Your task to perform on an android device: Do I have any events today? Image 0: 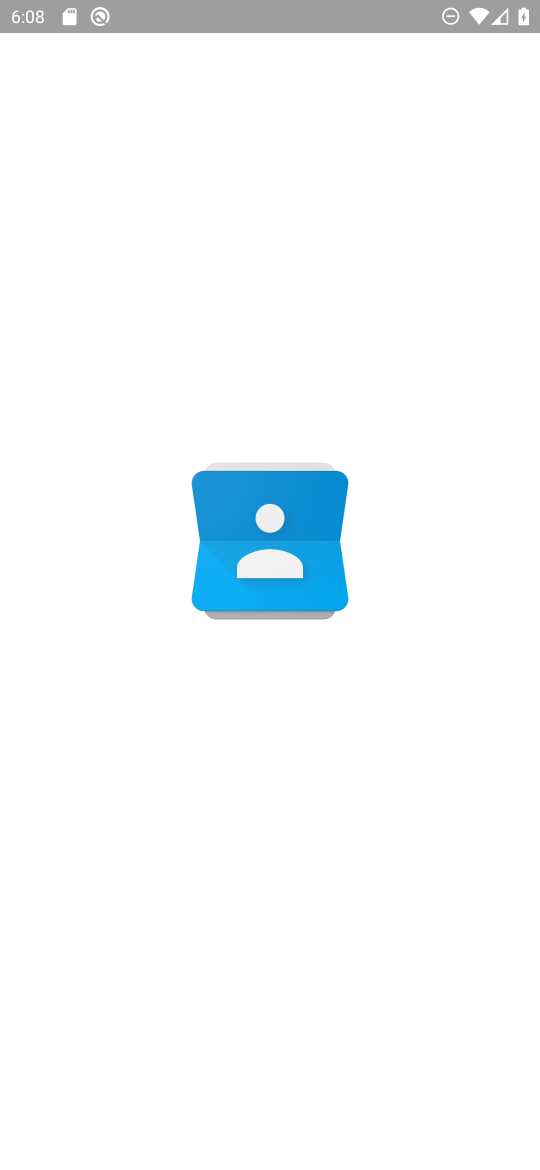
Step 0: press home button
Your task to perform on an android device: Do I have any events today? Image 1: 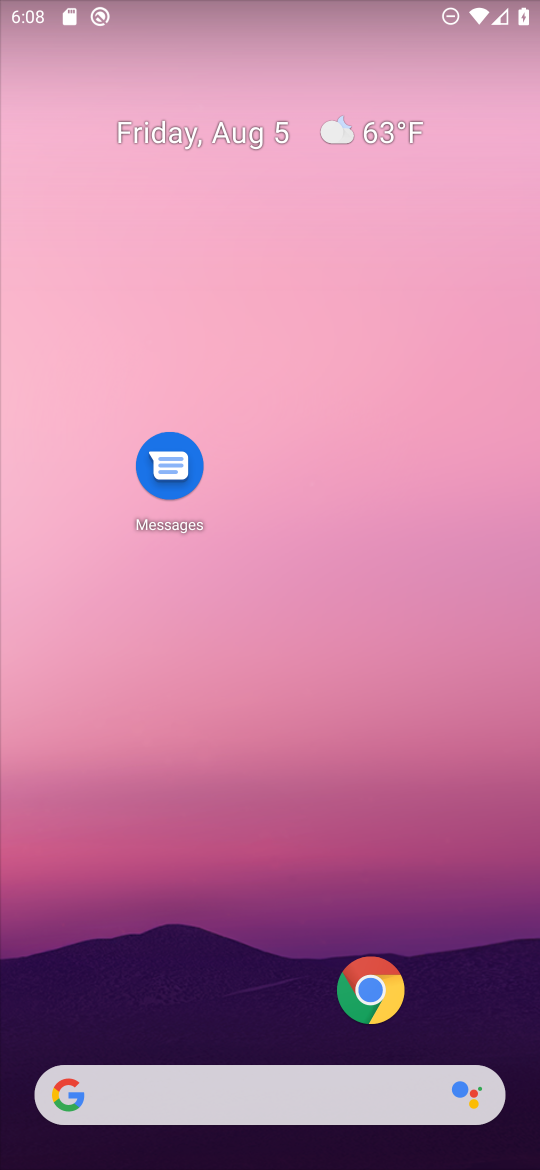
Step 1: drag from (145, 899) to (129, 639)
Your task to perform on an android device: Do I have any events today? Image 2: 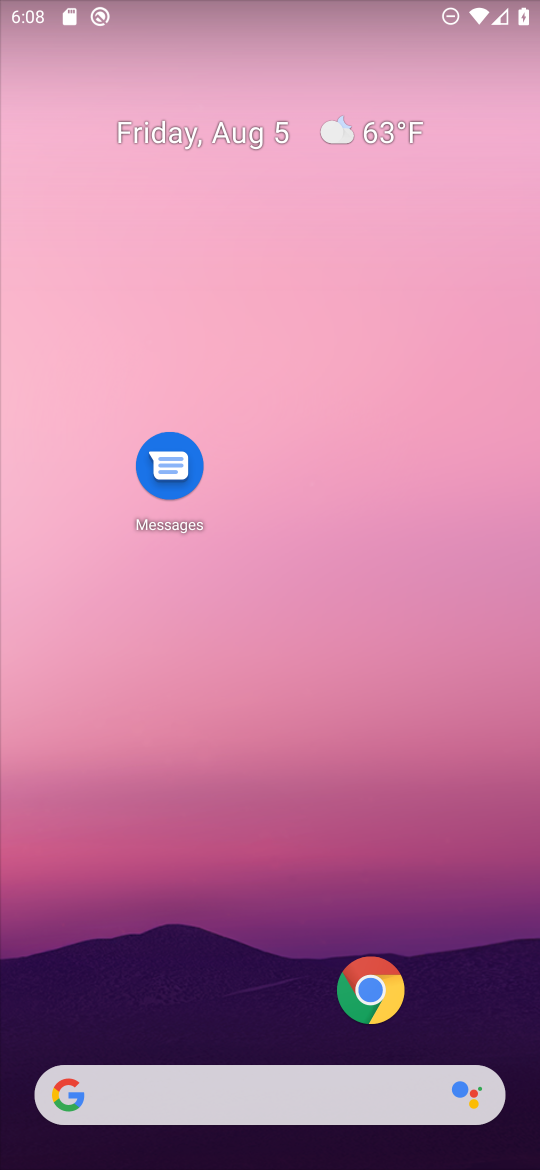
Step 2: drag from (230, 1046) to (163, 515)
Your task to perform on an android device: Do I have any events today? Image 3: 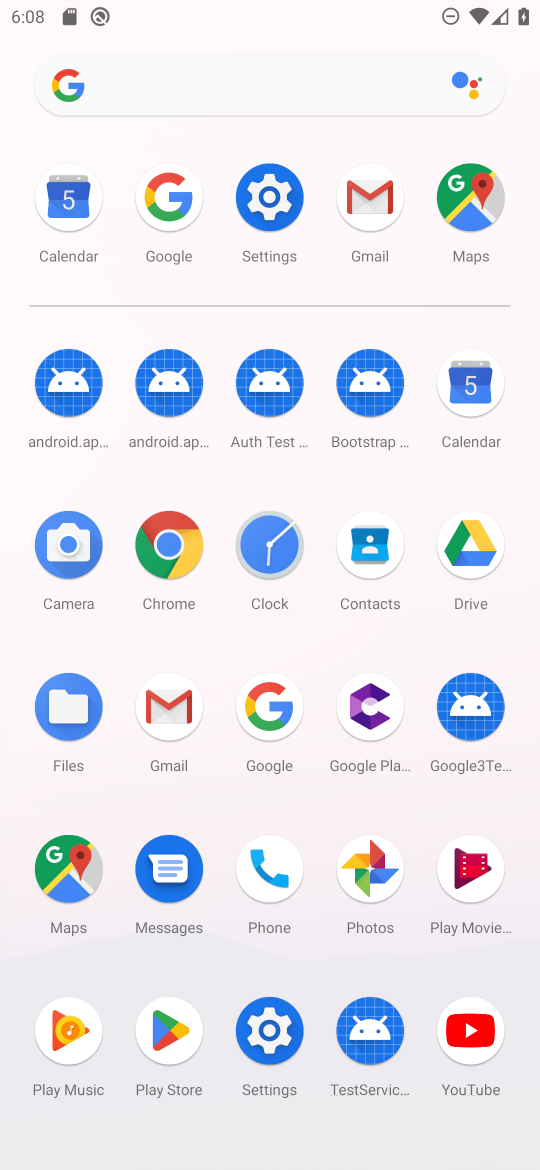
Step 3: click (481, 390)
Your task to perform on an android device: Do I have any events today? Image 4: 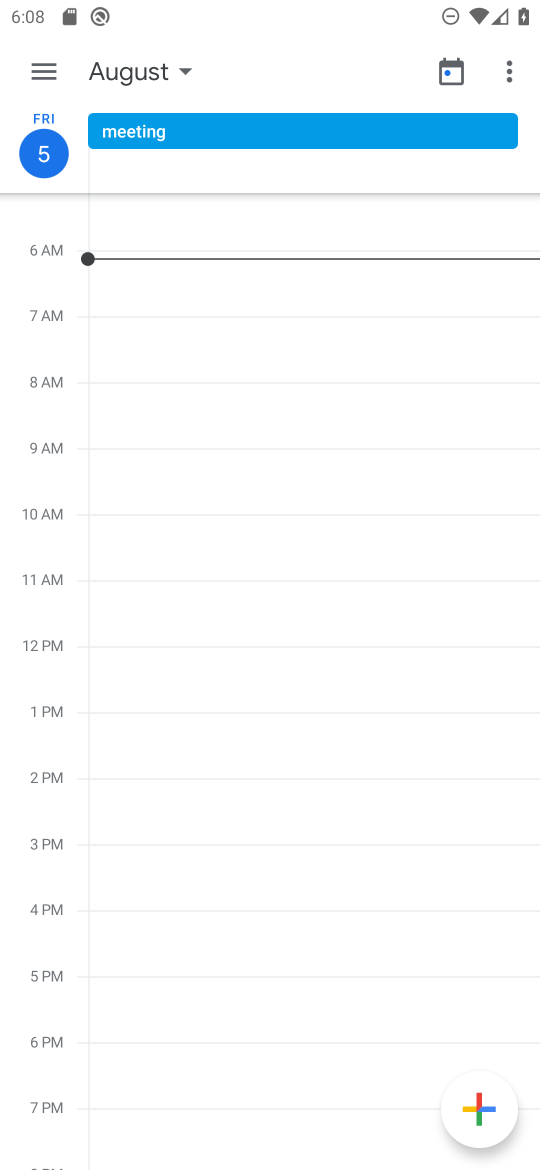
Step 4: click (125, 57)
Your task to perform on an android device: Do I have any events today? Image 5: 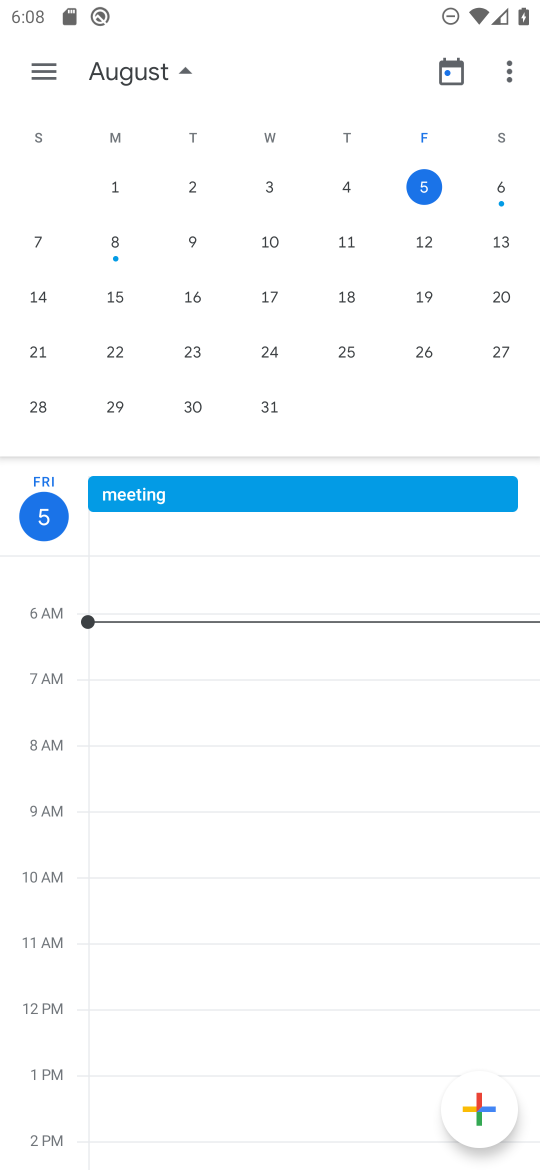
Step 5: click (419, 190)
Your task to perform on an android device: Do I have any events today? Image 6: 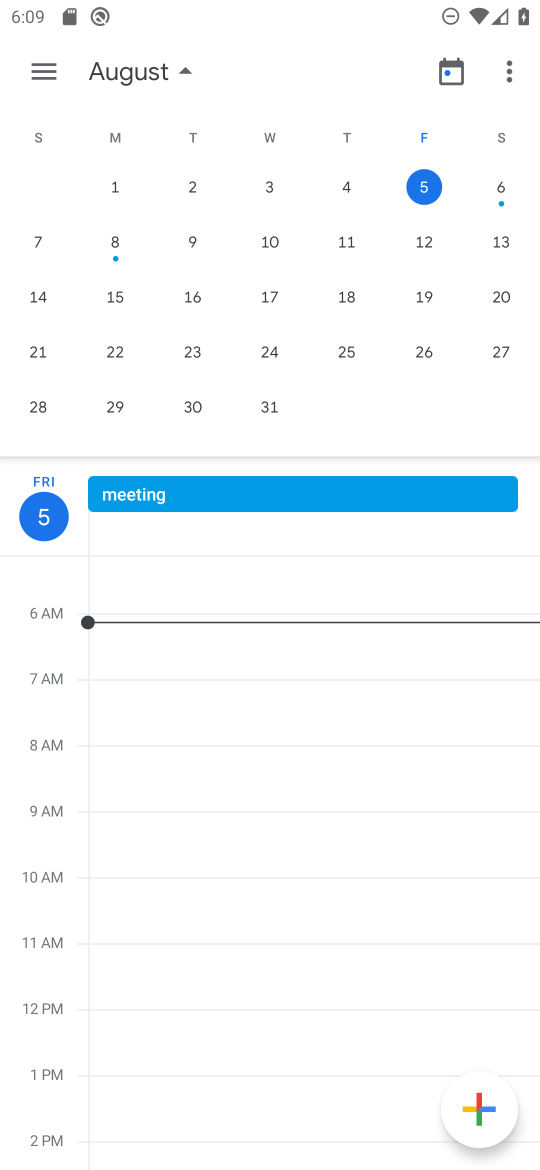
Step 6: task complete